Your task to perform on an android device: When is my next appointment? Image 0: 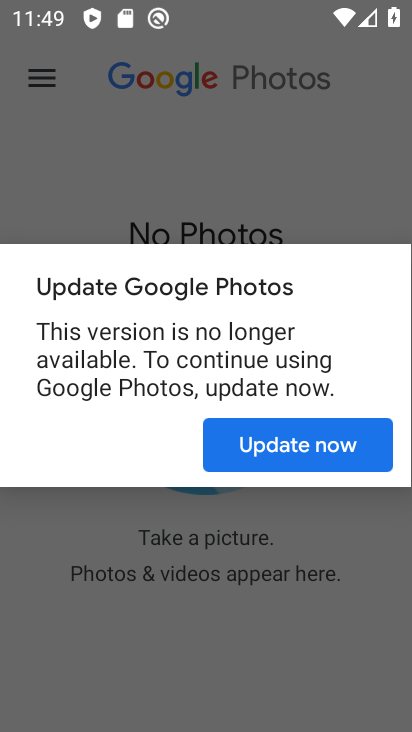
Step 0: press home button
Your task to perform on an android device: When is my next appointment? Image 1: 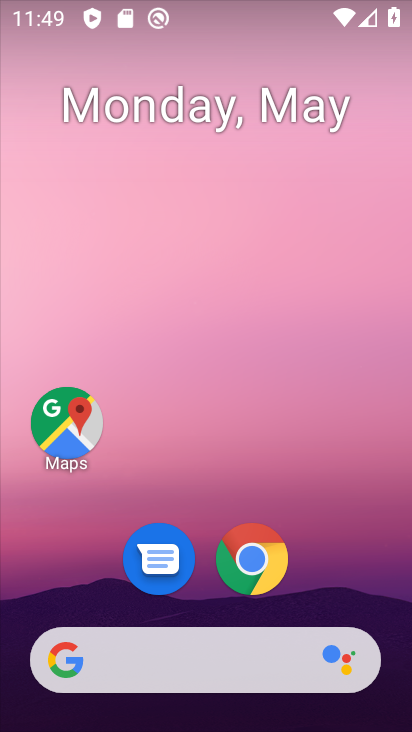
Step 1: drag from (205, 613) to (232, 137)
Your task to perform on an android device: When is my next appointment? Image 2: 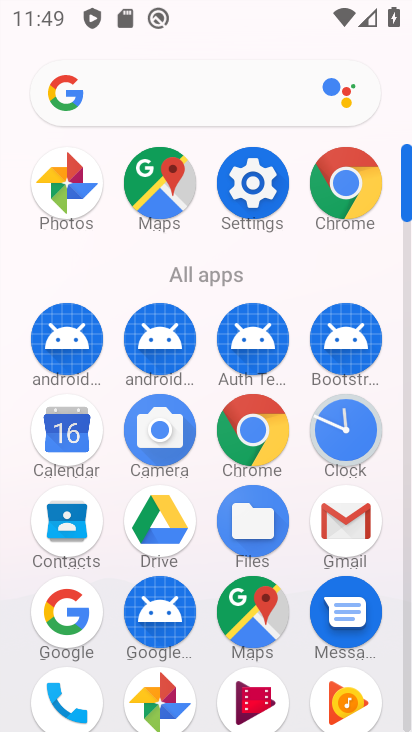
Step 2: click (62, 428)
Your task to perform on an android device: When is my next appointment? Image 3: 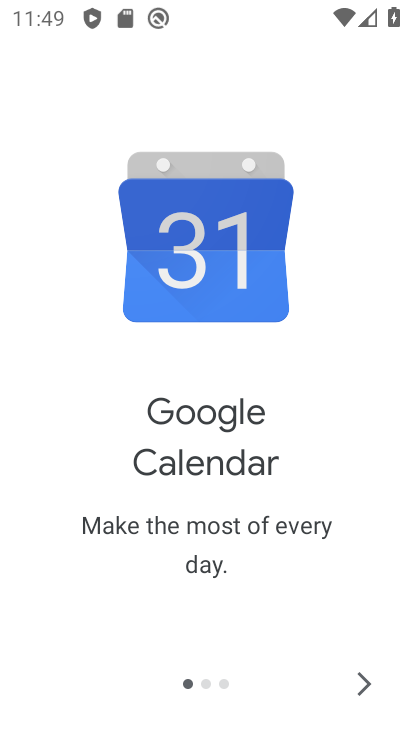
Step 3: click (362, 683)
Your task to perform on an android device: When is my next appointment? Image 4: 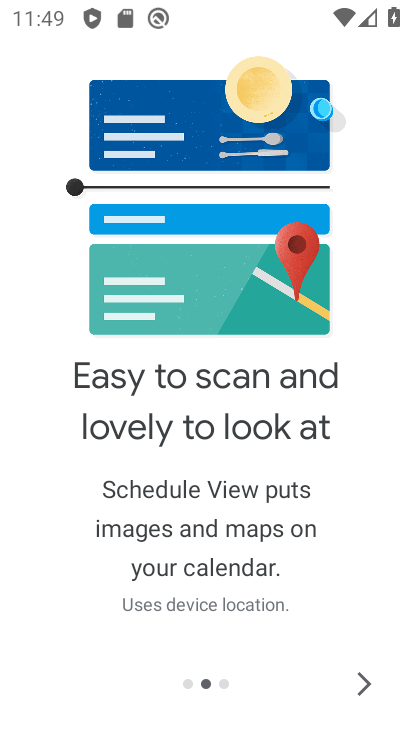
Step 4: click (362, 683)
Your task to perform on an android device: When is my next appointment? Image 5: 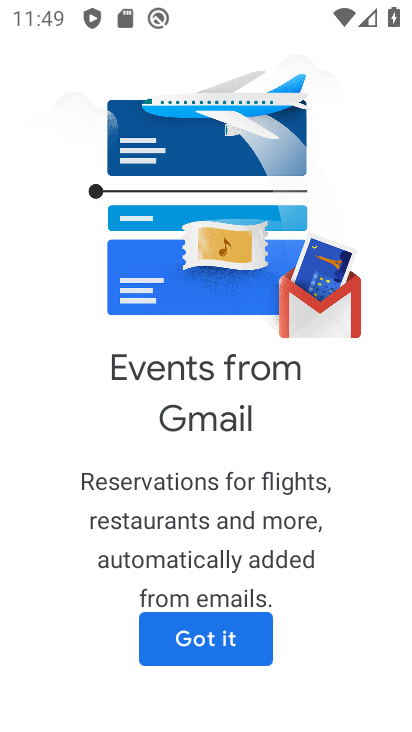
Step 5: click (207, 631)
Your task to perform on an android device: When is my next appointment? Image 6: 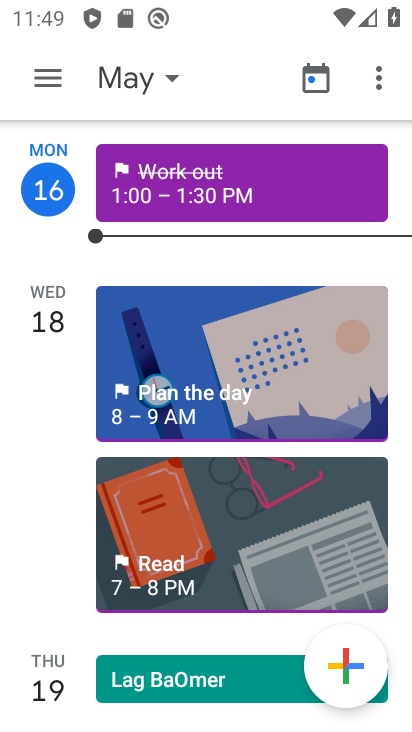
Step 6: task complete